Your task to perform on an android device: find which apps use the phone's location Image 0: 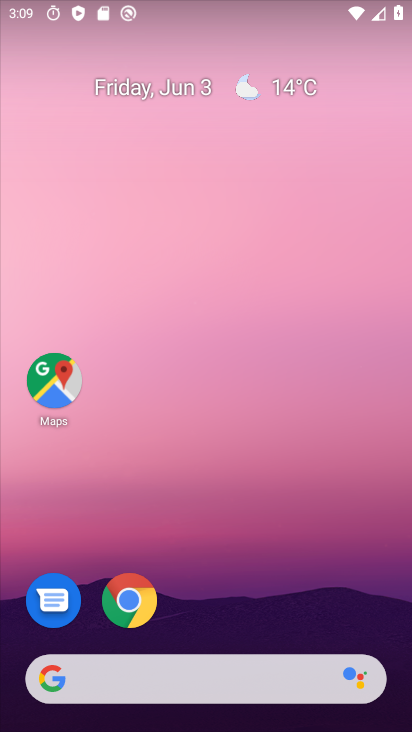
Step 0: drag from (280, 547) to (203, 67)
Your task to perform on an android device: find which apps use the phone's location Image 1: 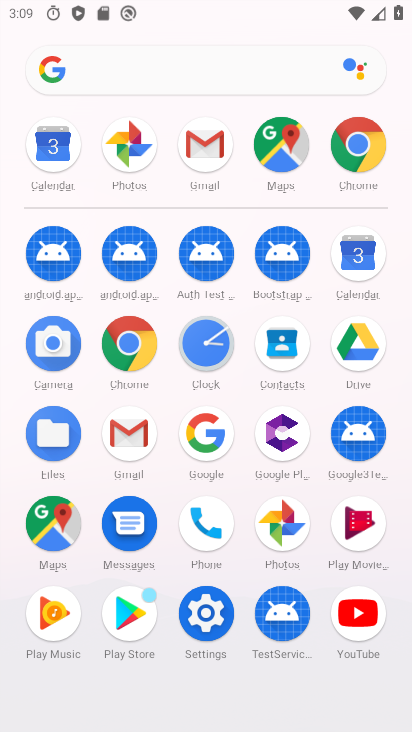
Step 1: click (207, 612)
Your task to perform on an android device: find which apps use the phone's location Image 2: 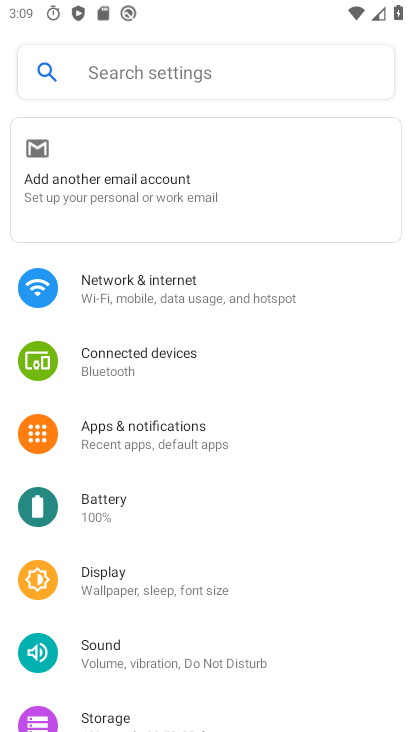
Step 2: drag from (311, 617) to (346, 149)
Your task to perform on an android device: find which apps use the phone's location Image 3: 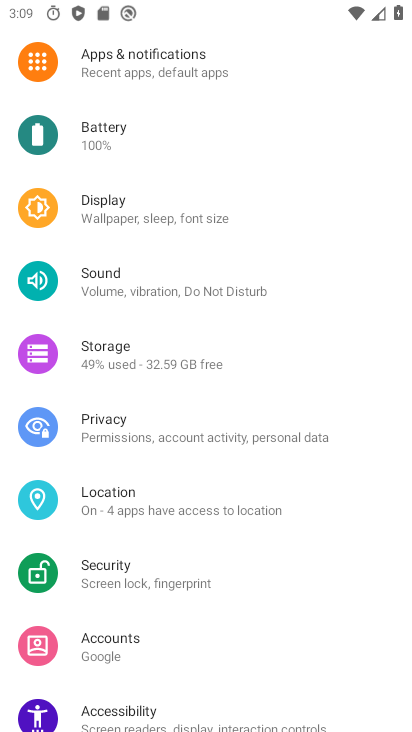
Step 3: click (176, 496)
Your task to perform on an android device: find which apps use the phone's location Image 4: 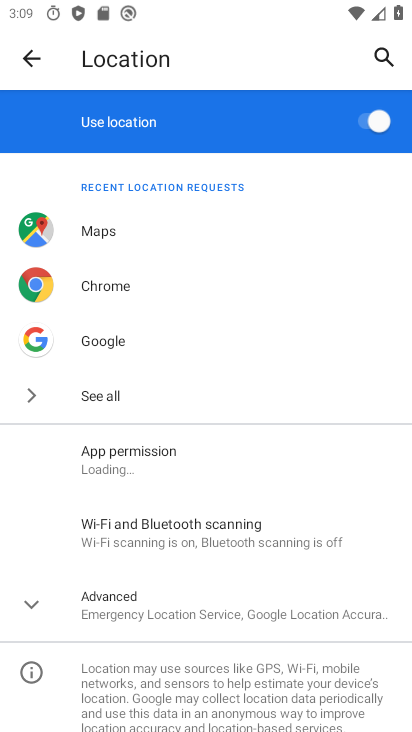
Step 4: click (74, 595)
Your task to perform on an android device: find which apps use the phone's location Image 5: 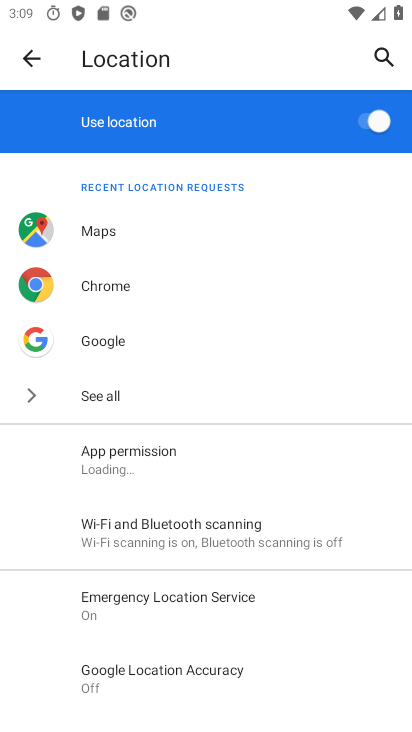
Step 5: click (166, 461)
Your task to perform on an android device: find which apps use the phone's location Image 6: 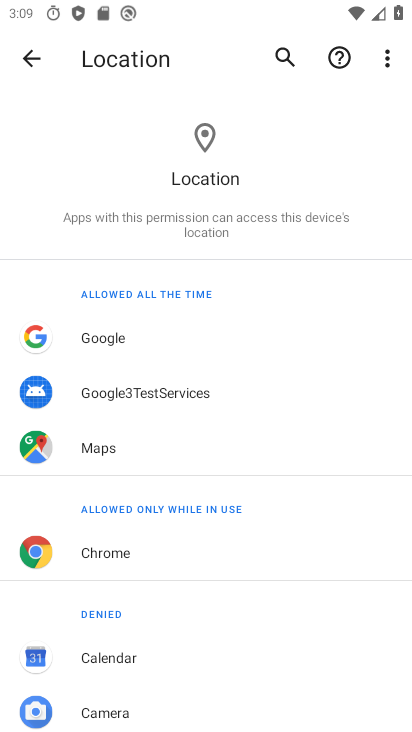
Step 6: task complete